Your task to perform on an android device: turn off wifi Image 0: 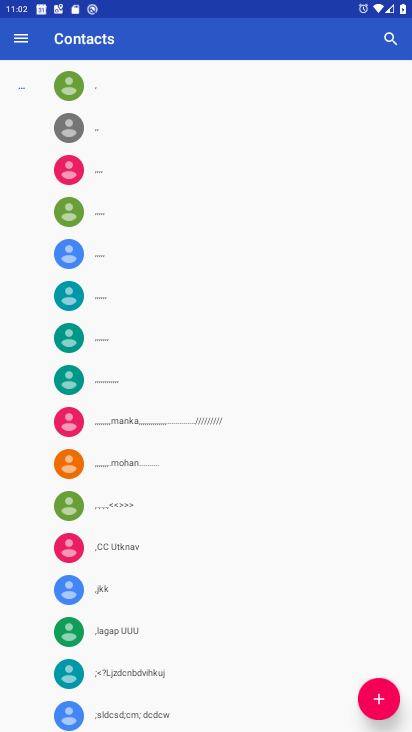
Step 0: press home button
Your task to perform on an android device: turn off wifi Image 1: 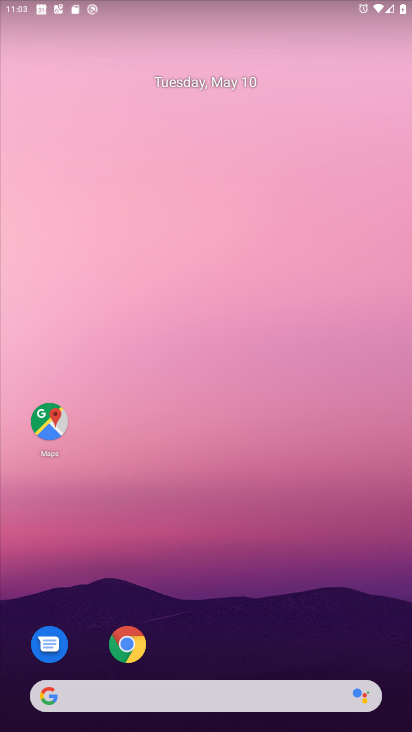
Step 1: drag from (248, 659) to (311, 155)
Your task to perform on an android device: turn off wifi Image 2: 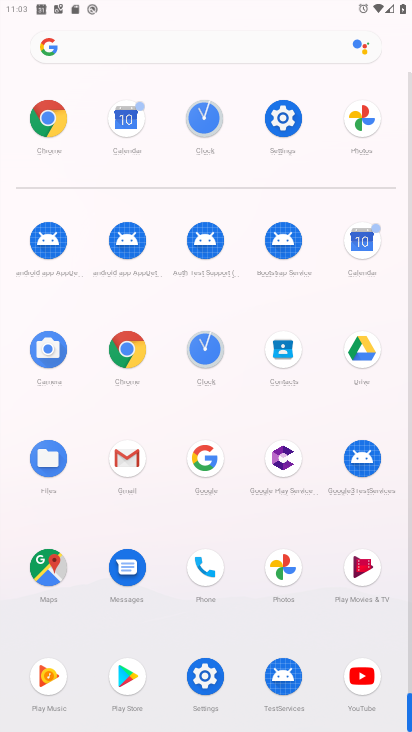
Step 2: click (284, 108)
Your task to perform on an android device: turn off wifi Image 3: 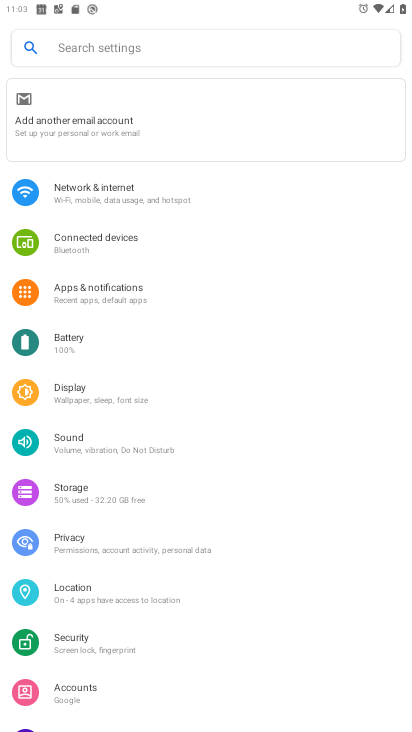
Step 3: click (188, 192)
Your task to perform on an android device: turn off wifi Image 4: 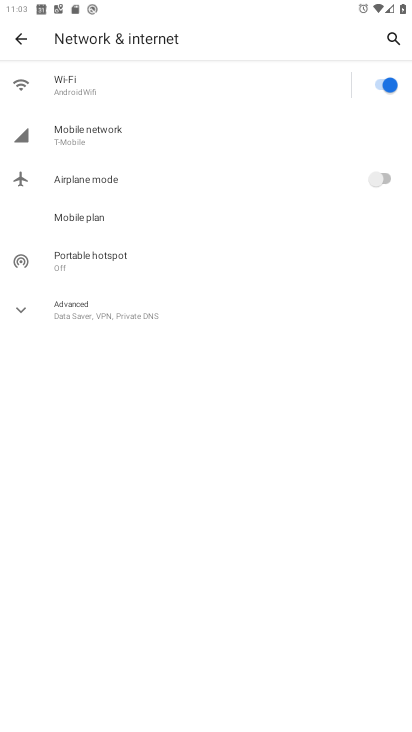
Step 4: click (380, 79)
Your task to perform on an android device: turn off wifi Image 5: 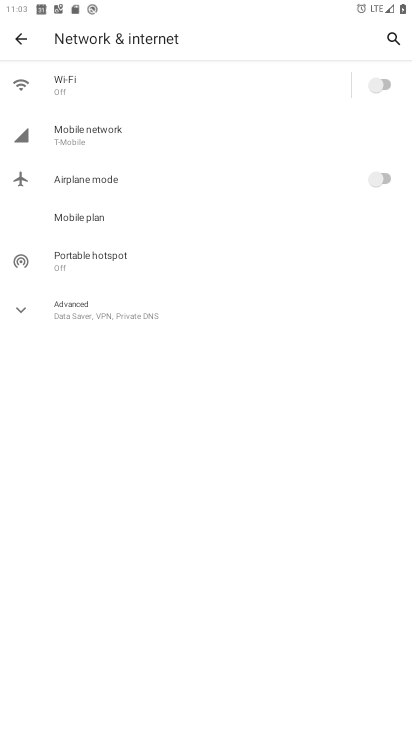
Step 5: task complete